Your task to perform on an android device: install app "Microsoft Outlook" Image 0: 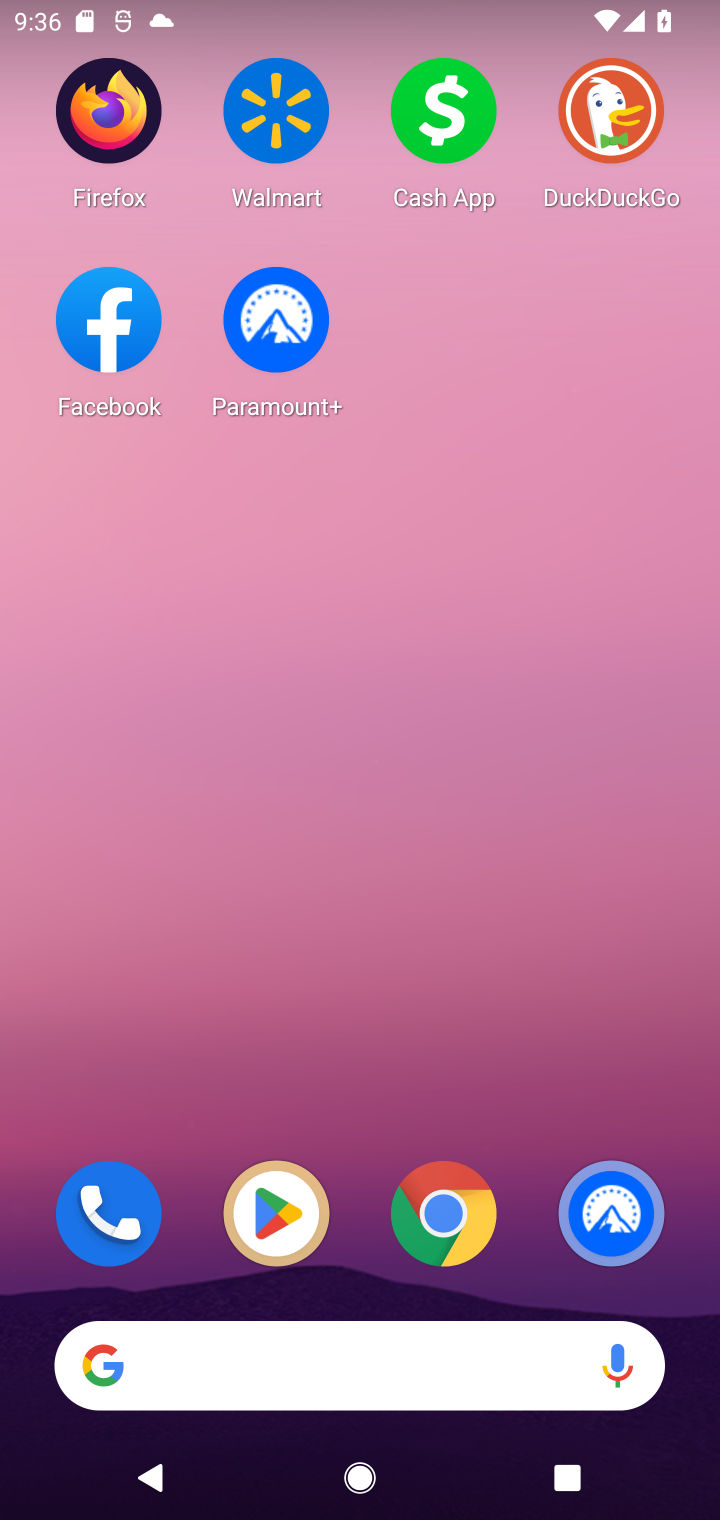
Step 0: click (284, 1207)
Your task to perform on an android device: install app "Microsoft Outlook" Image 1: 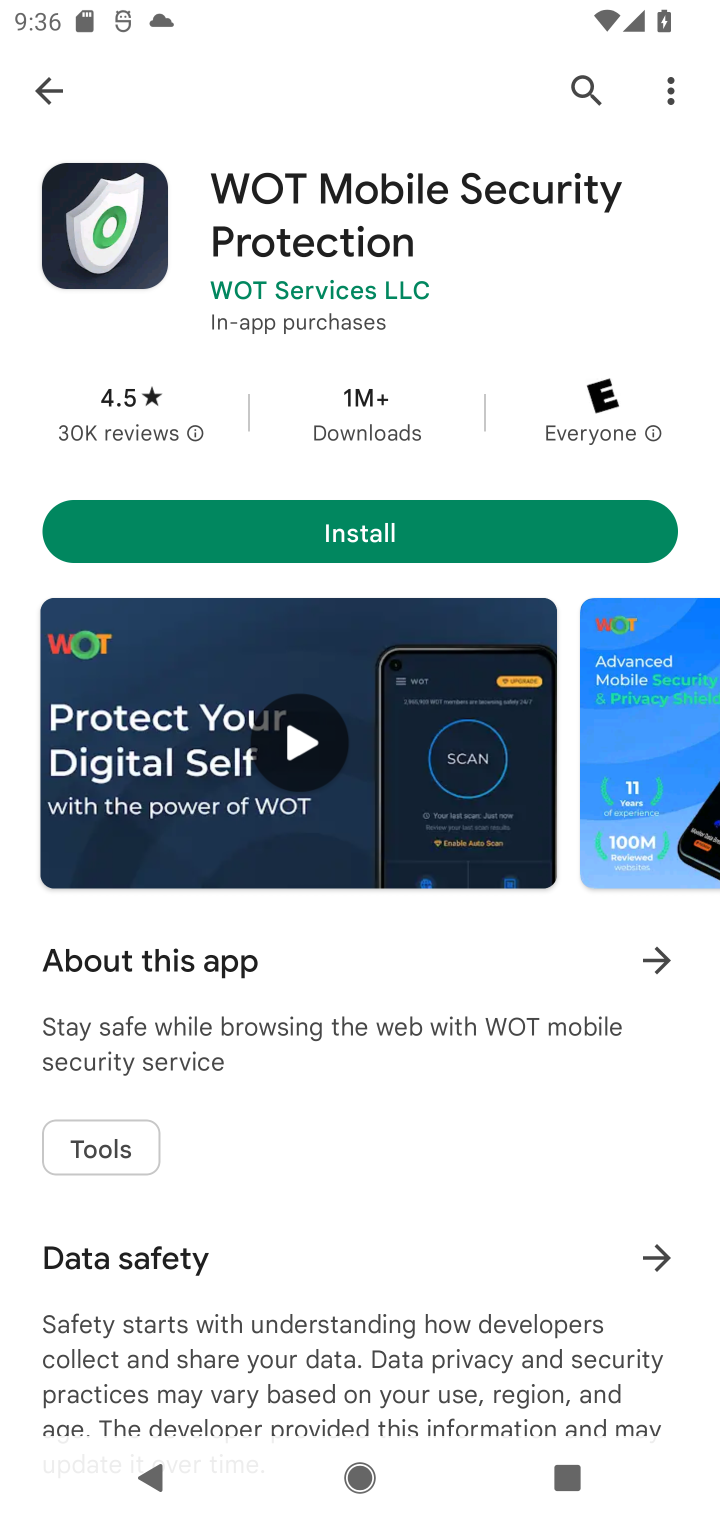
Step 1: click (38, 89)
Your task to perform on an android device: install app "Microsoft Outlook" Image 2: 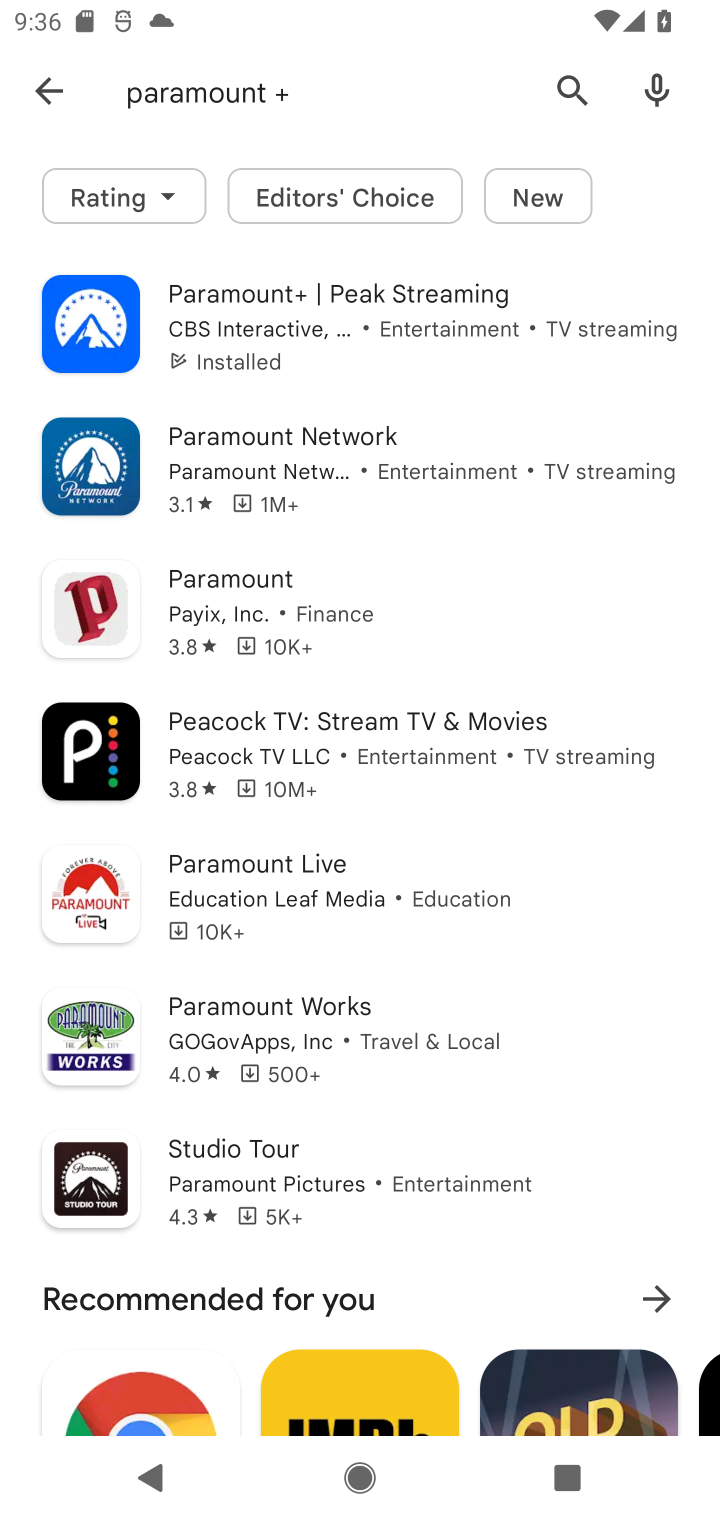
Step 2: click (265, 96)
Your task to perform on an android device: install app "Microsoft Outlook" Image 3: 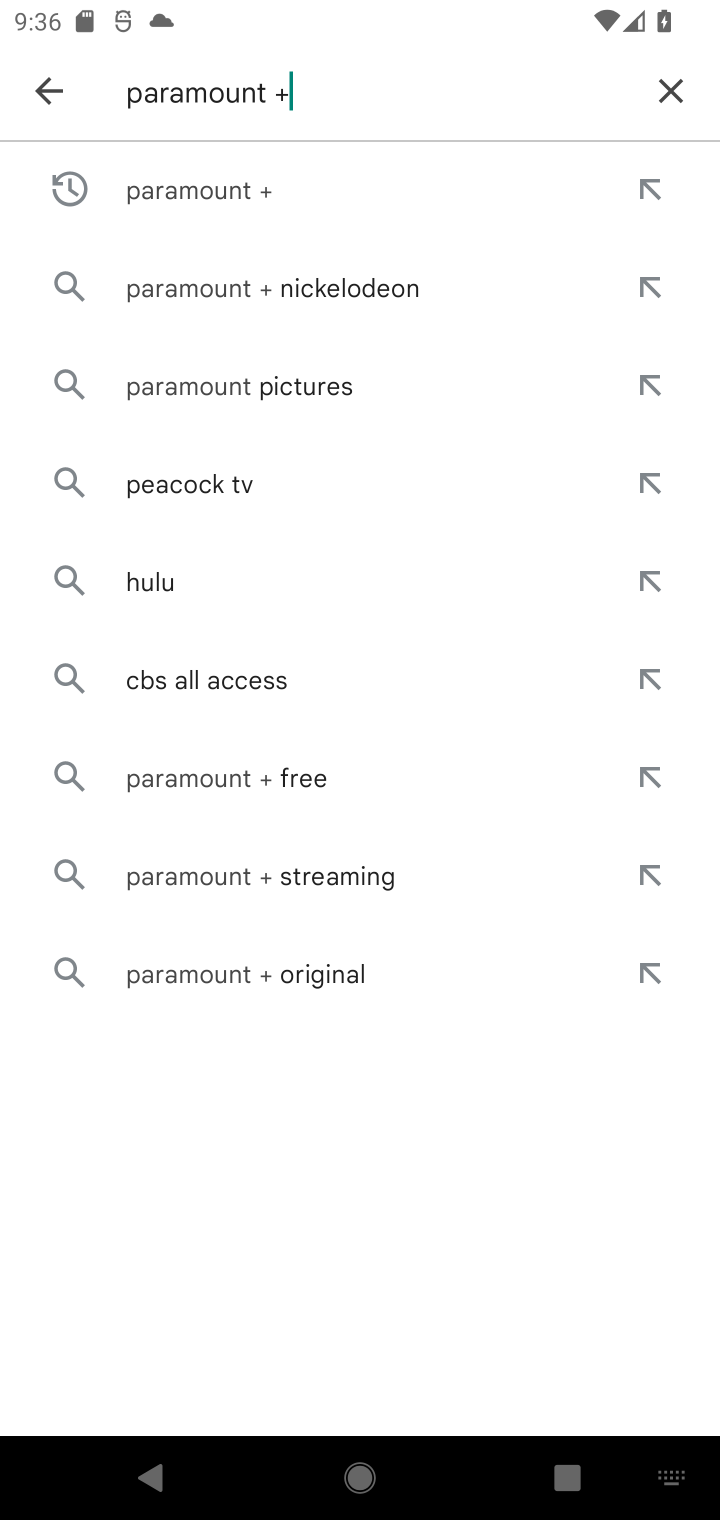
Step 3: click (664, 100)
Your task to perform on an android device: install app "Microsoft Outlook" Image 4: 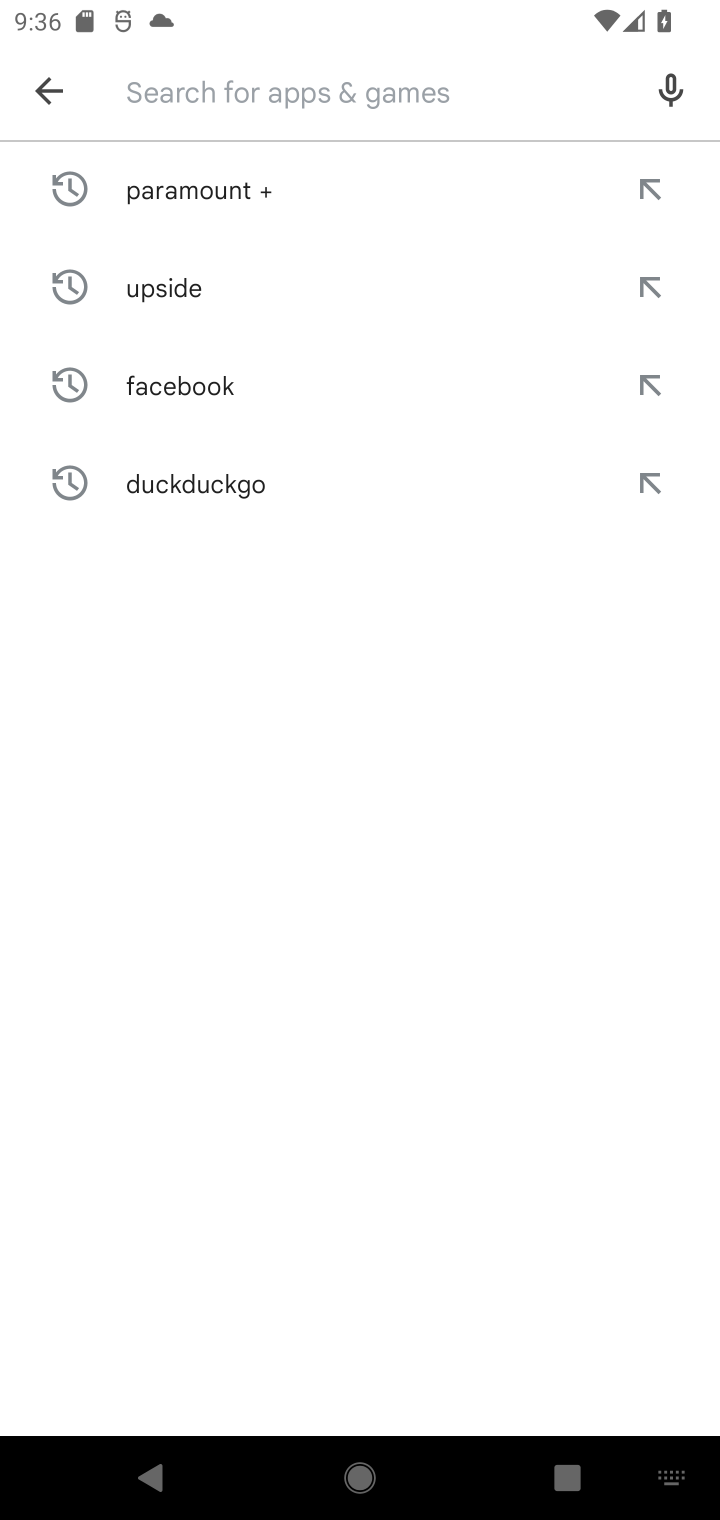
Step 4: type "Microsoft Outlook"
Your task to perform on an android device: install app "Microsoft Outlook" Image 5: 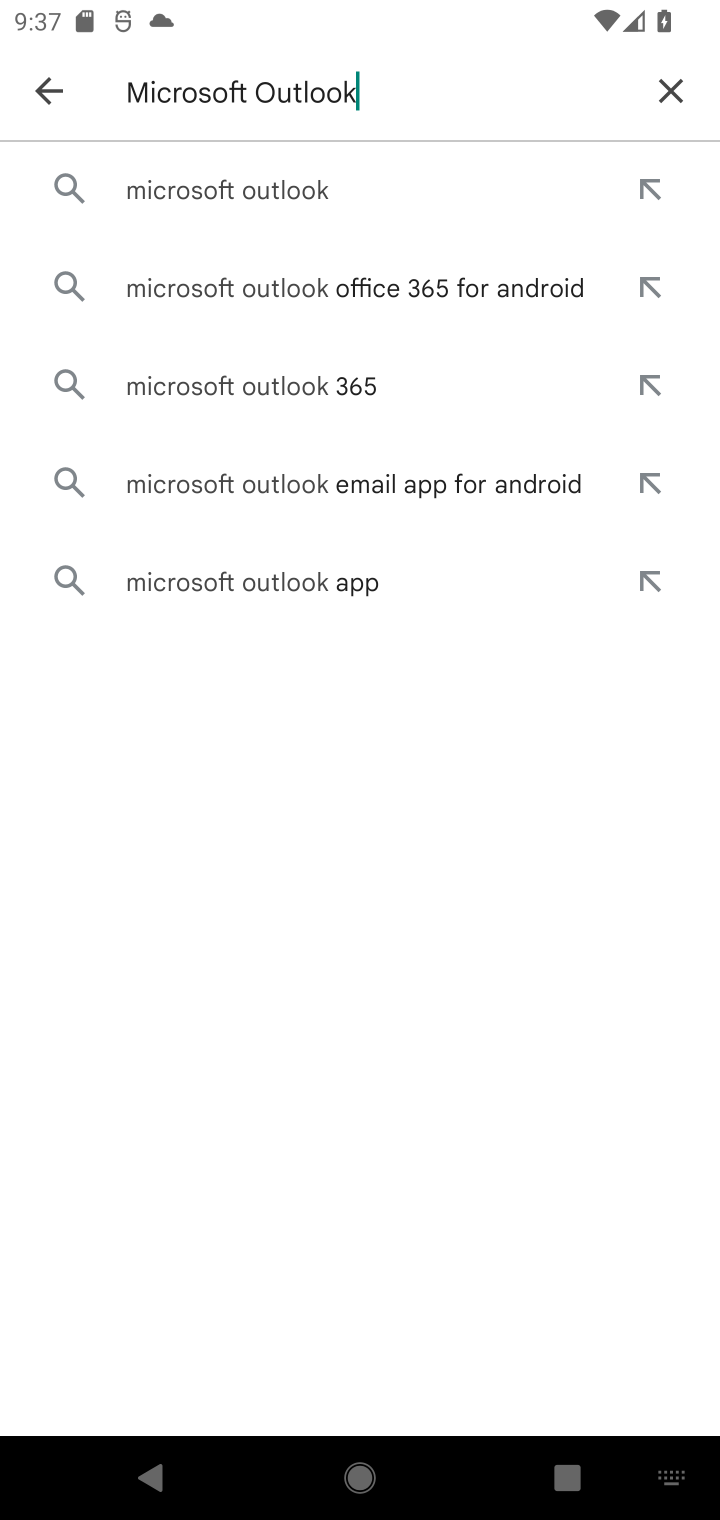
Step 5: click (285, 203)
Your task to perform on an android device: install app "Microsoft Outlook" Image 6: 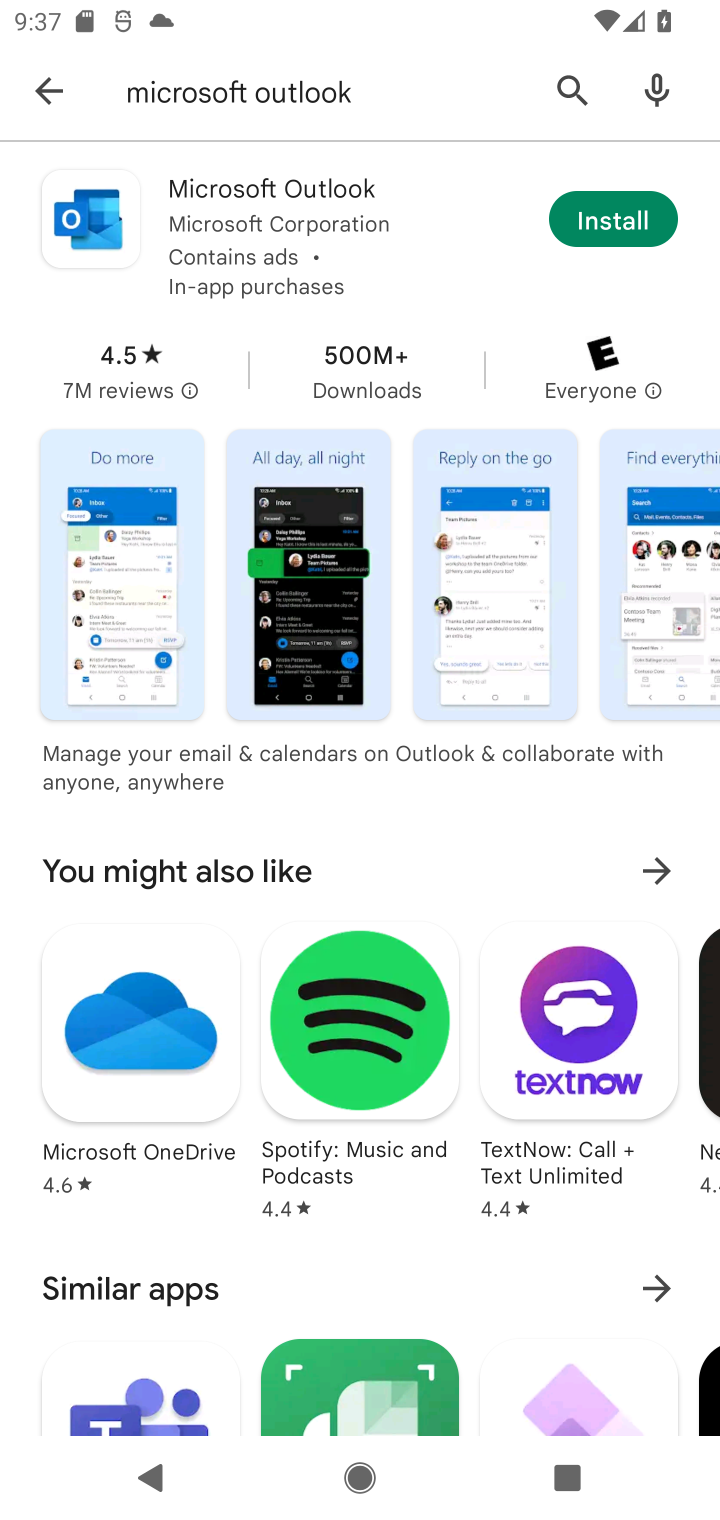
Step 6: click (647, 202)
Your task to perform on an android device: install app "Microsoft Outlook" Image 7: 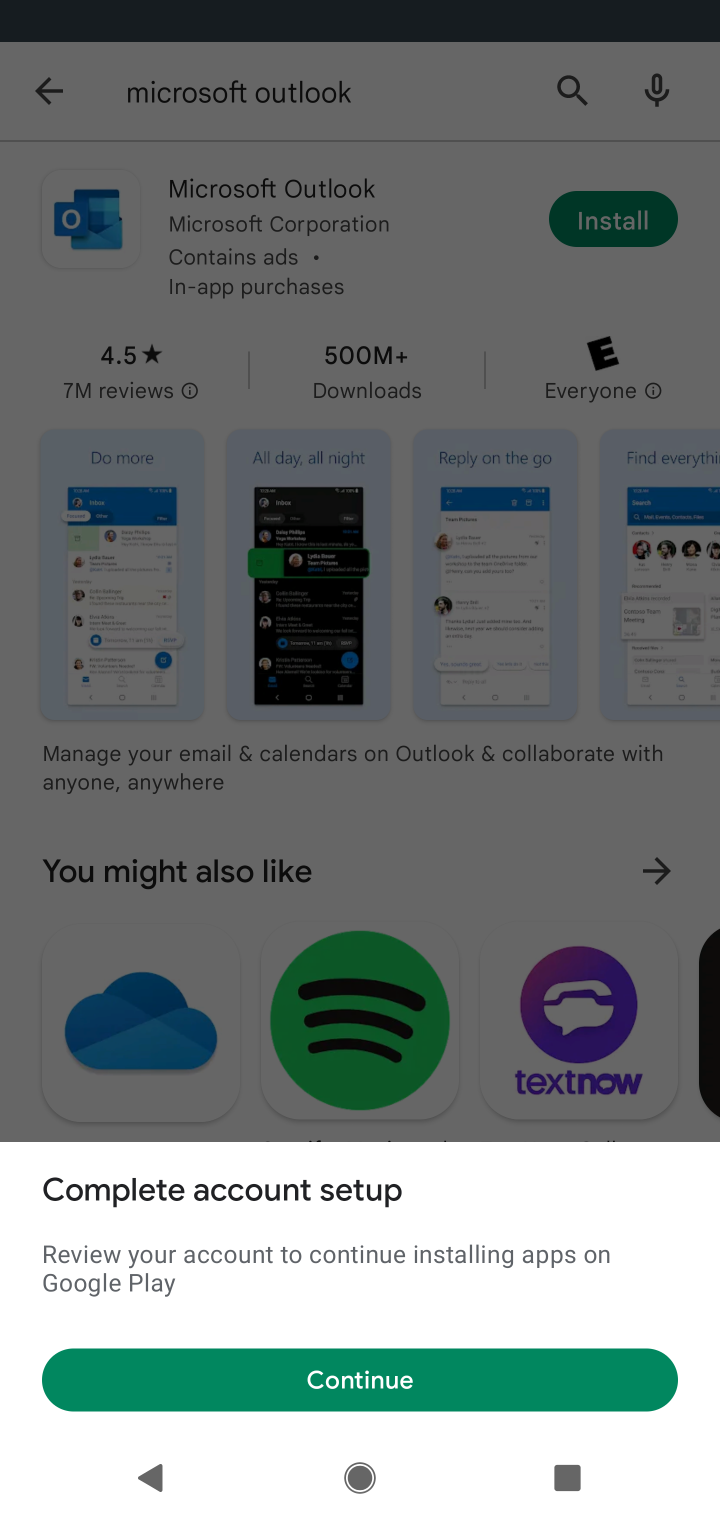
Step 7: click (370, 1375)
Your task to perform on an android device: install app "Microsoft Outlook" Image 8: 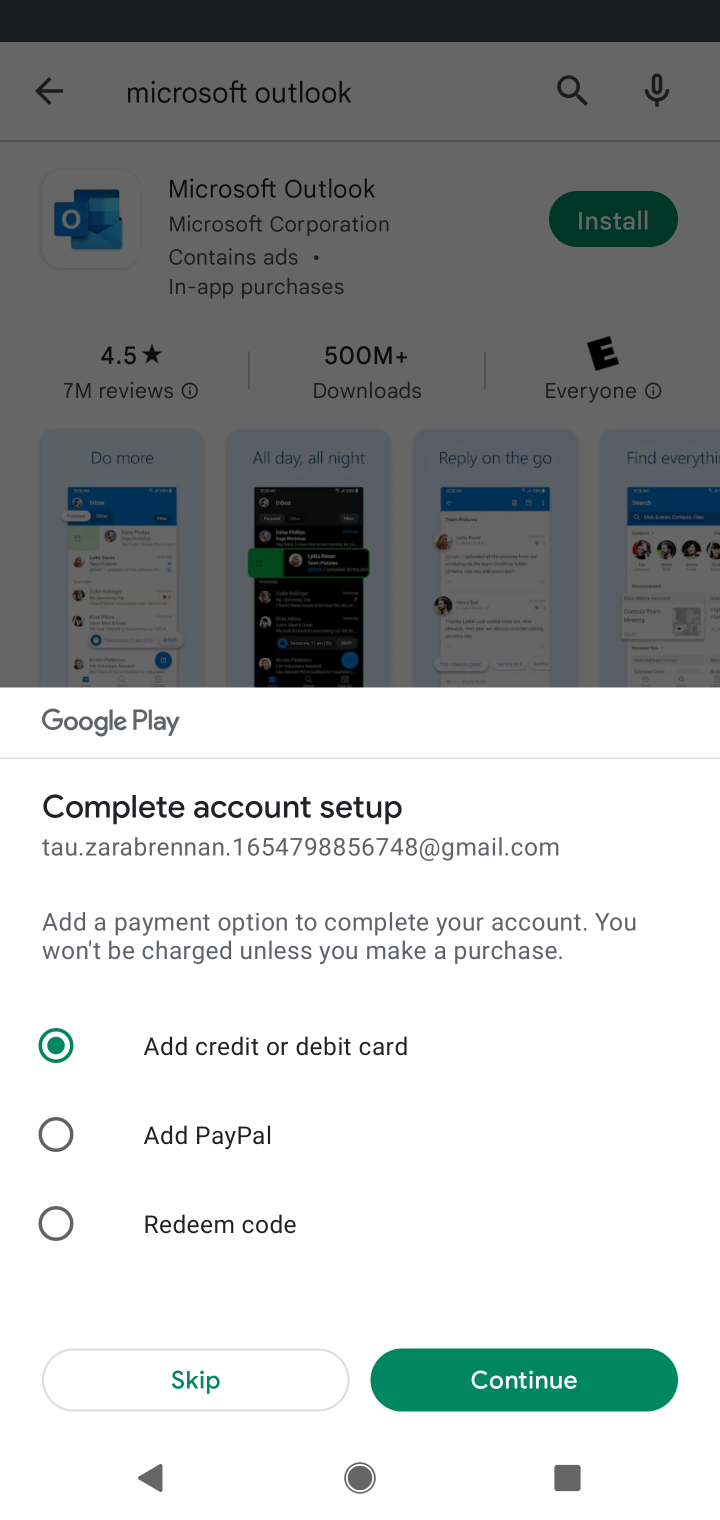
Step 8: click (149, 1379)
Your task to perform on an android device: install app "Microsoft Outlook" Image 9: 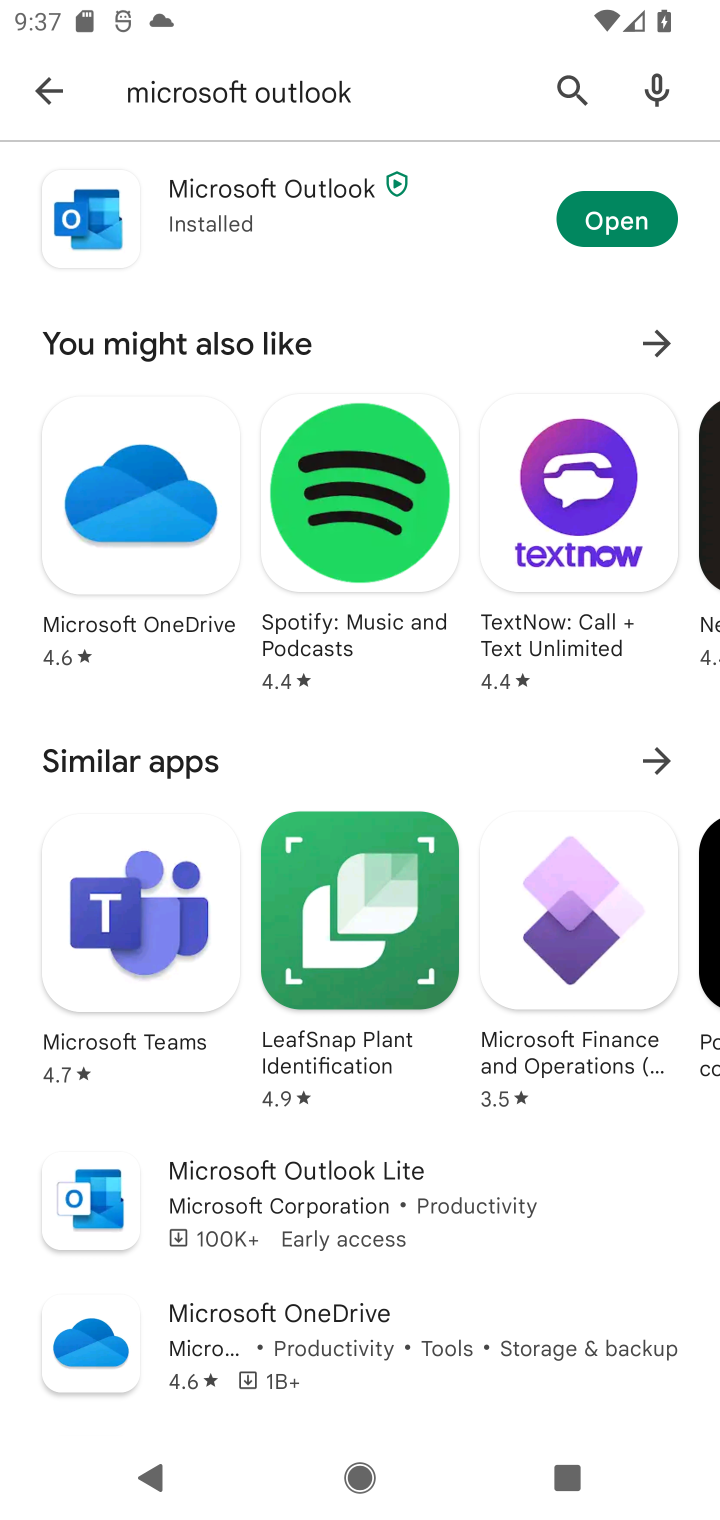
Step 9: task complete